Your task to perform on an android device: Go to eBay Image 0: 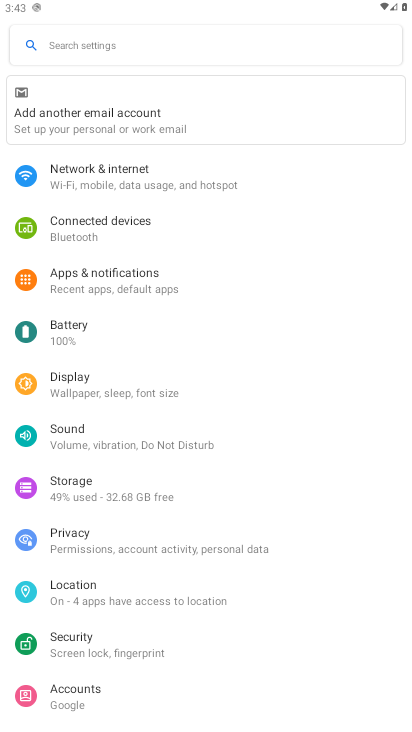
Step 0: press home button
Your task to perform on an android device: Go to eBay Image 1: 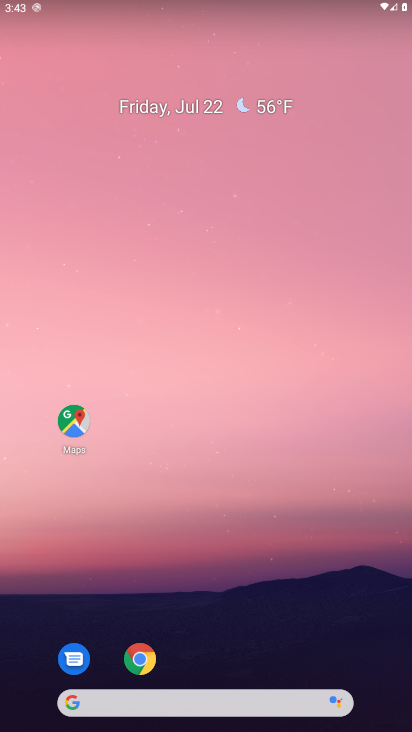
Step 1: click (140, 663)
Your task to perform on an android device: Go to eBay Image 2: 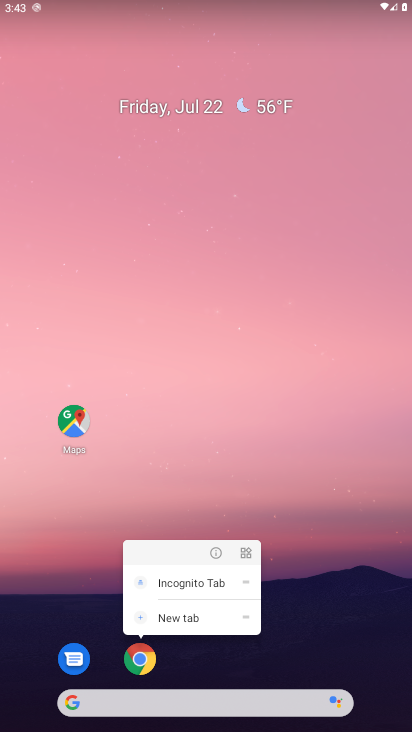
Step 2: click (140, 663)
Your task to perform on an android device: Go to eBay Image 3: 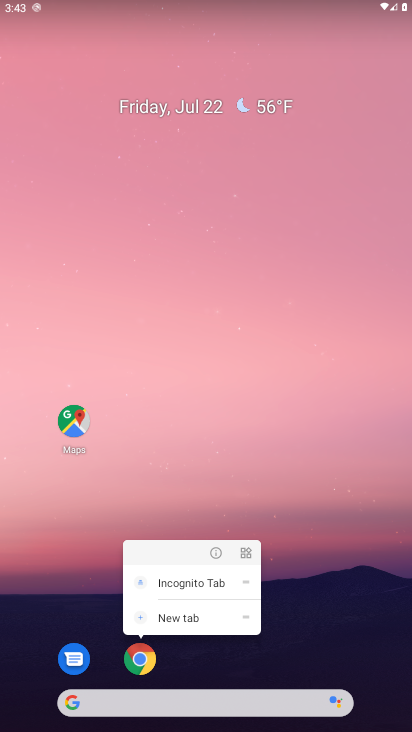
Step 3: click (140, 663)
Your task to perform on an android device: Go to eBay Image 4: 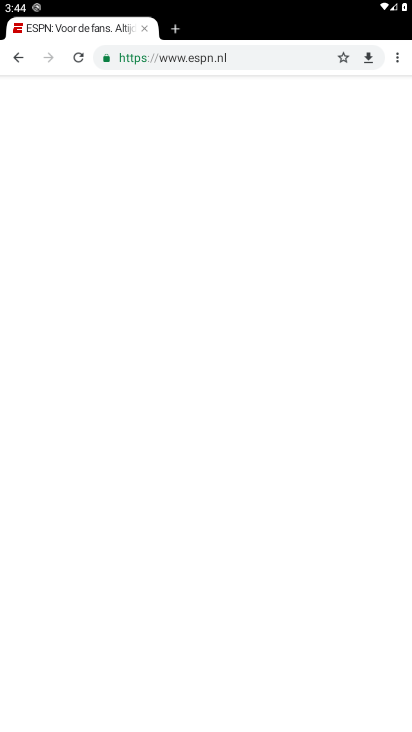
Step 4: click (145, 28)
Your task to perform on an android device: Go to eBay Image 5: 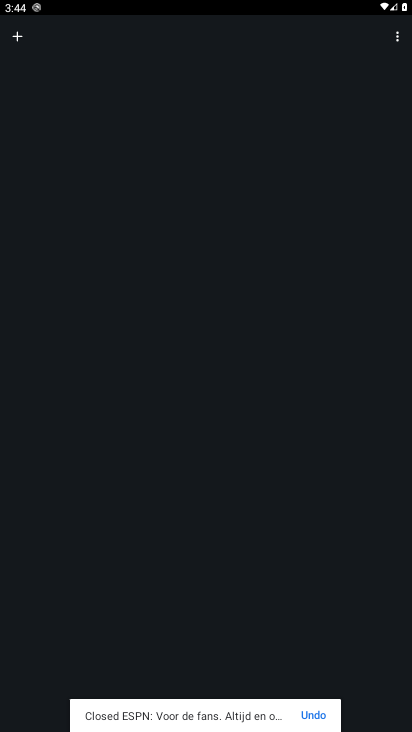
Step 5: click (20, 39)
Your task to perform on an android device: Go to eBay Image 6: 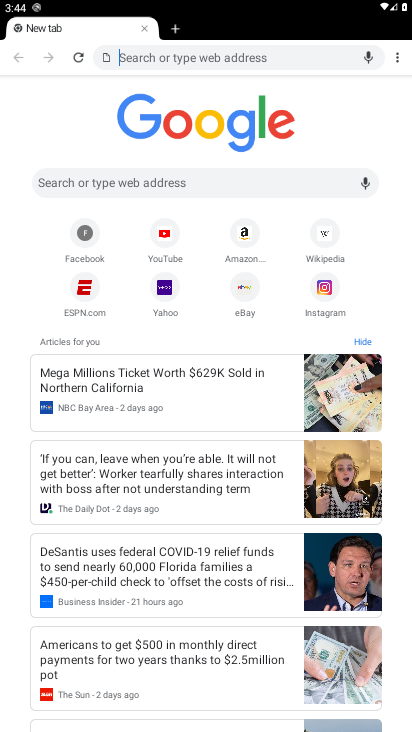
Step 6: click (241, 290)
Your task to perform on an android device: Go to eBay Image 7: 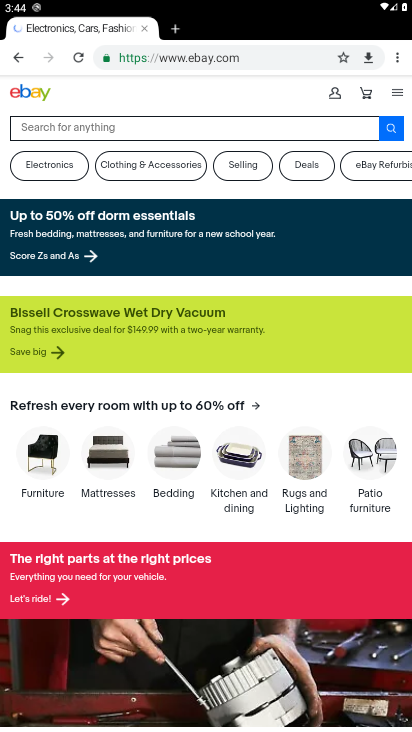
Step 7: task complete